Your task to perform on an android device: set default search engine in the chrome app Image 0: 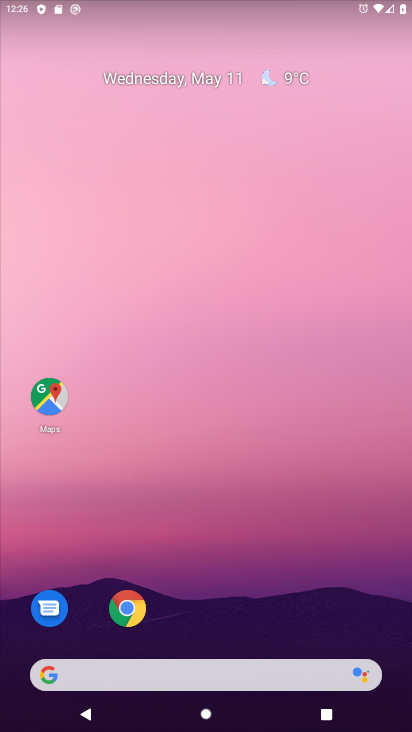
Step 0: drag from (255, 560) to (266, 192)
Your task to perform on an android device: set default search engine in the chrome app Image 1: 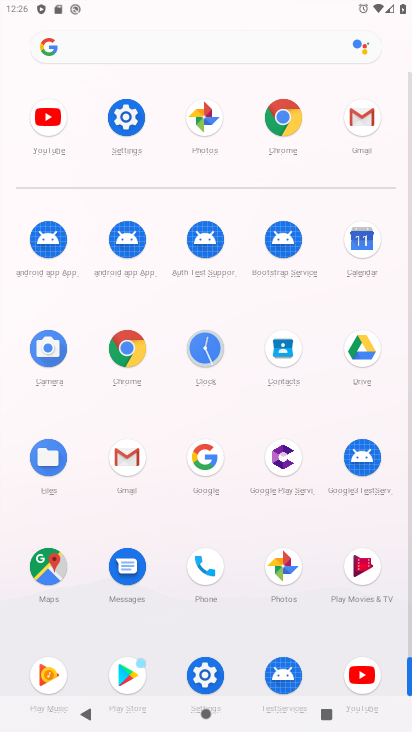
Step 1: click (291, 126)
Your task to perform on an android device: set default search engine in the chrome app Image 2: 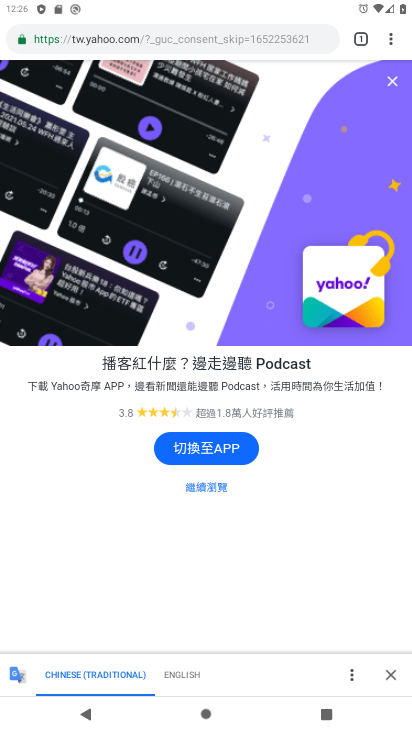
Step 2: click (389, 30)
Your task to perform on an android device: set default search engine in the chrome app Image 3: 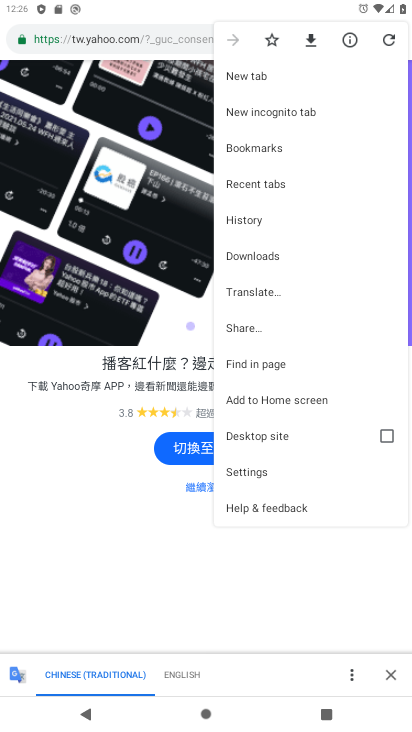
Step 3: click (254, 472)
Your task to perform on an android device: set default search engine in the chrome app Image 4: 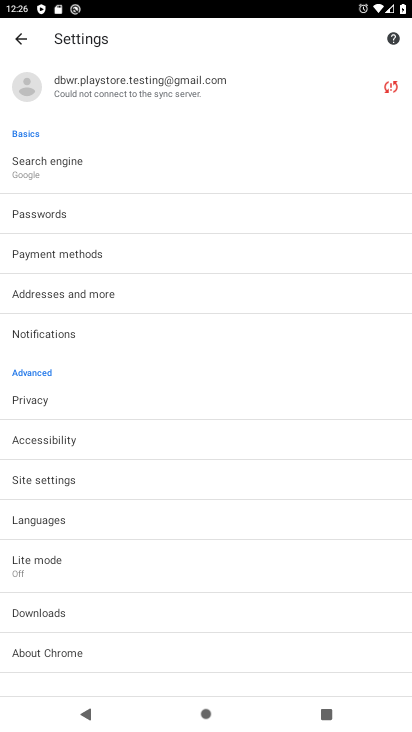
Step 4: drag from (209, 187) to (126, 427)
Your task to perform on an android device: set default search engine in the chrome app Image 5: 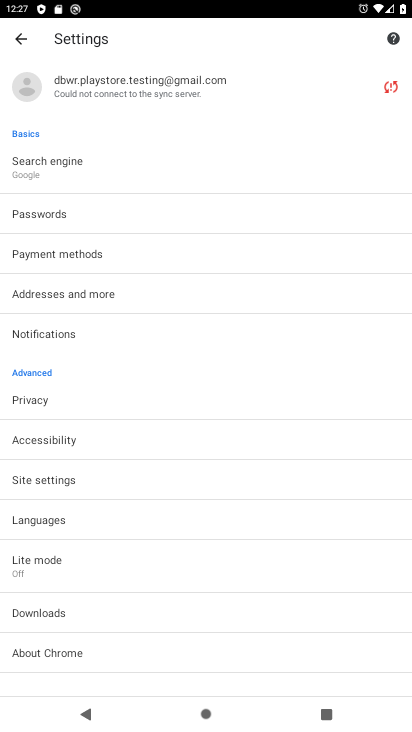
Step 5: click (201, 45)
Your task to perform on an android device: set default search engine in the chrome app Image 6: 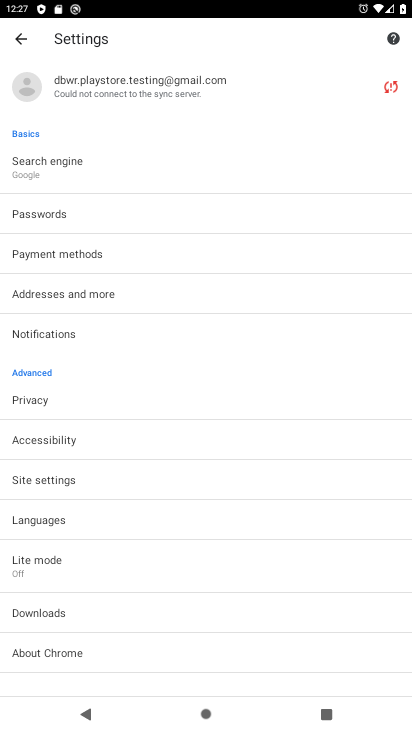
Step 6: click (201, 45)
Your task to perform on an android device: set default search engine in the chrome app Image 7: 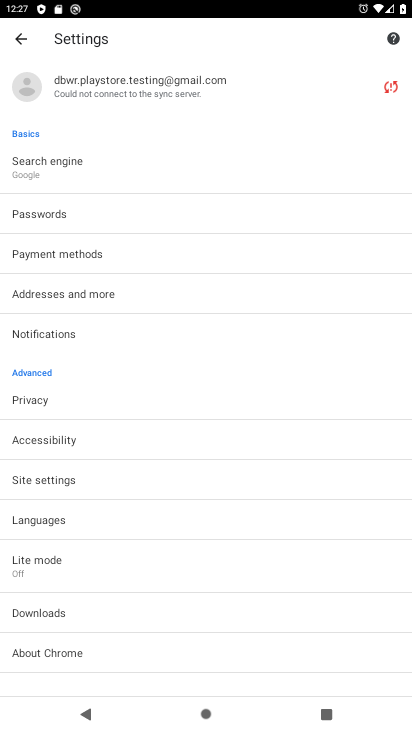
Step 7: click (118, 168)
Your task to perform on an android device: set default search engine in the chrome app Image 8: 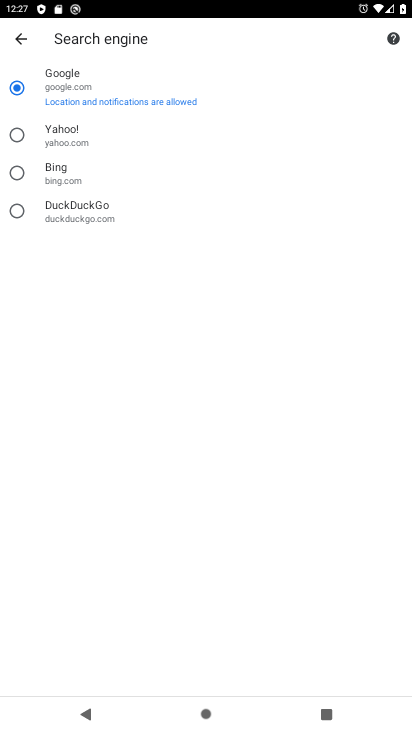
Step 8: click (118, 183)
Your task to perform on an android device: set default search engine in the chrome app Image 9: 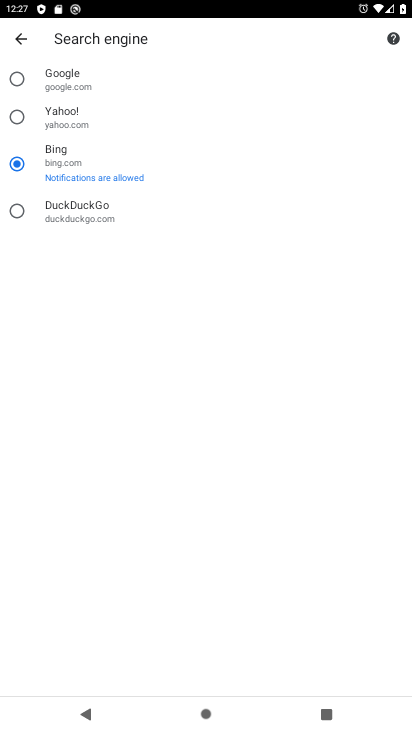
Step 9: click (117, 188)
Your task to perform on an android device: set default search engine in the chrome app Image 10: 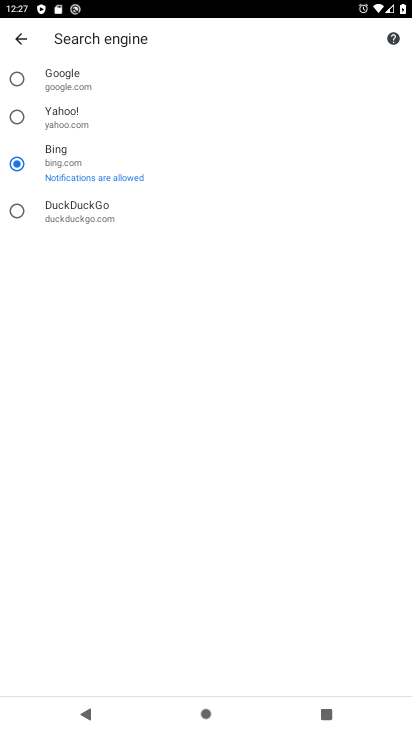
Step 10: click (117, 188)
Your task to perform on an android device: set default search engine in the chrome app Image 11: 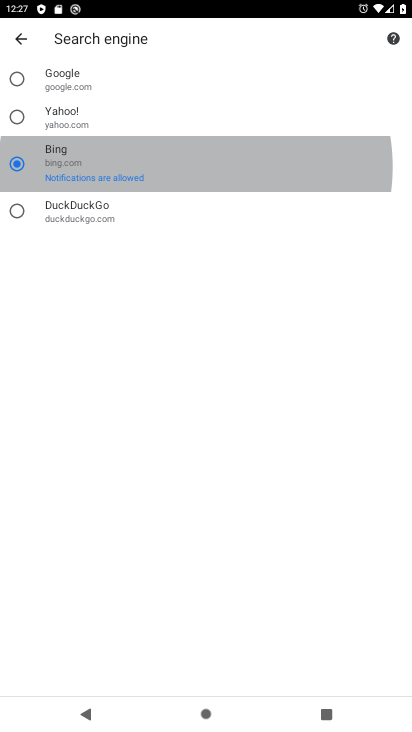
Step 11: click (117, 188)
Your task to perform on an android device: set default search engine in the chrome app Image 12: 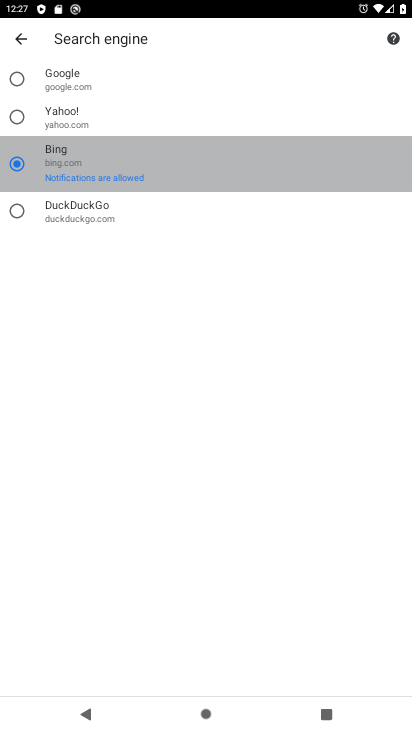
Step 12: click (117, 188)
Your task to perform on an android device: set default search engine in the chrome app Image 13: 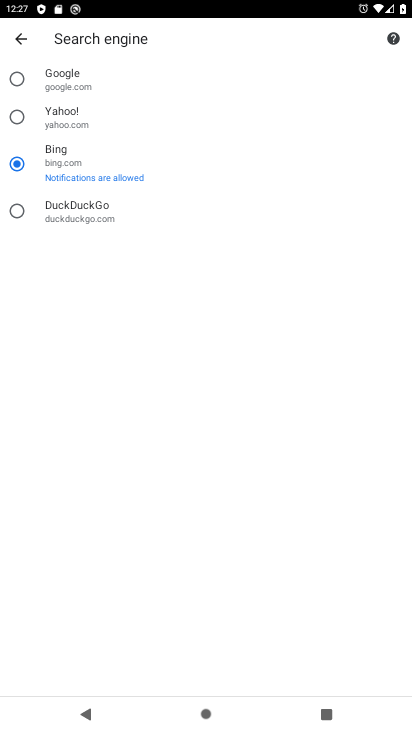
Step 13: click (16, 82)
Your task to perform on an android device: set default search engine in the chrome app Image 14: 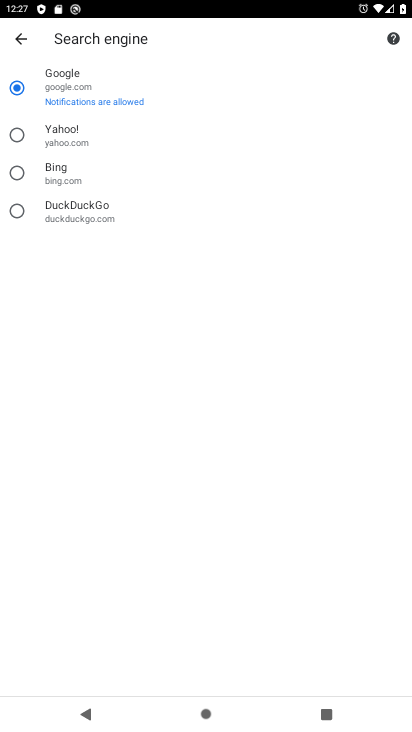
Step 14: task complete